Your task to perform on an android device: Open Yahoo.com Image 0: 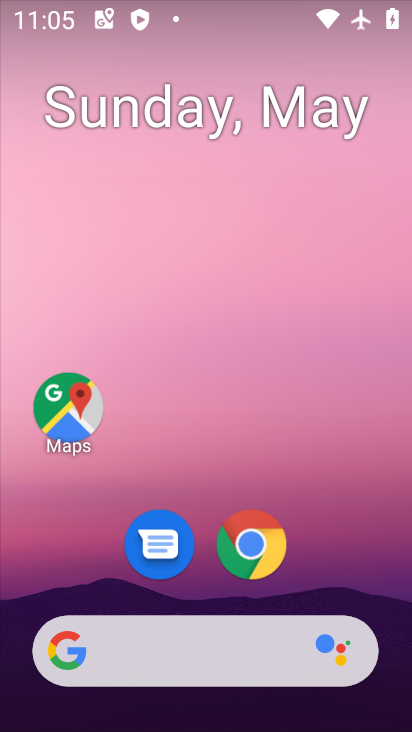
Step 0: click (231, 548)
Your task to perform on an android device: Open Yahoo.com Image 1: 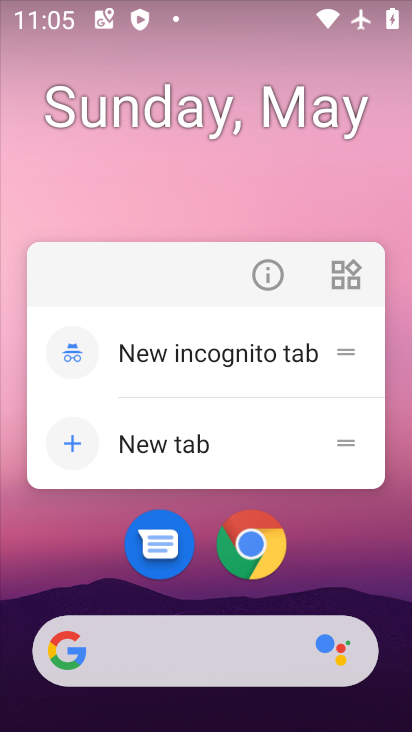
Step 1: click (267, 522)
Your task to perform on an android device: Open Yahoo.com Image 2: 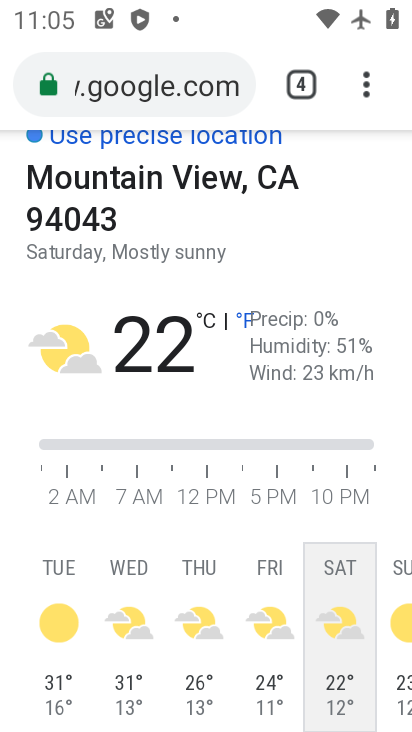
Step 2: click (357, 88)
Your task to perform on an android device: Open Yahoo.com Image 3: 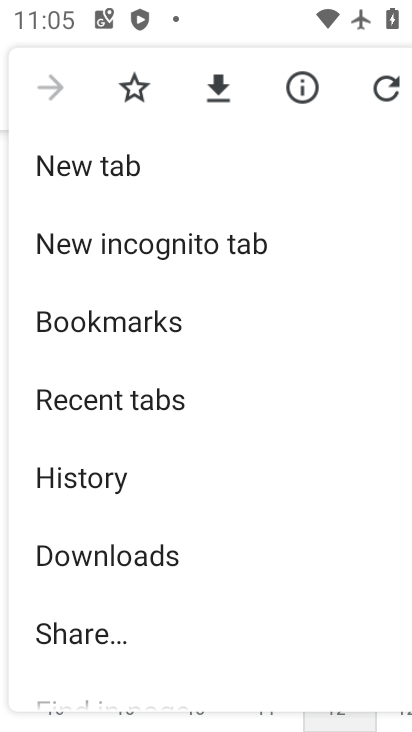
Step 3: click (92, 175)
Your task to perform on an android device: Open Yahoo.com Image 4: 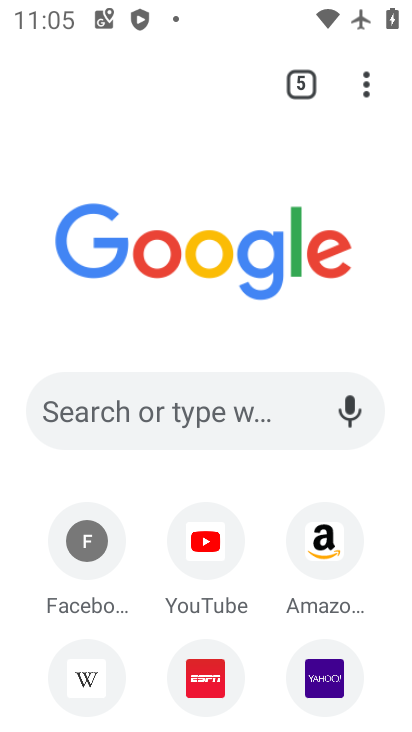
Step 4: click (325, 673)
Your task to perform on an android device: Open Yahoo.com Image 5: 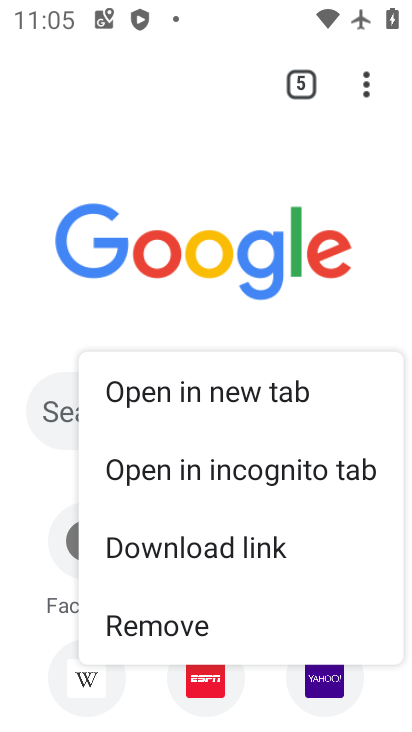
Step 5: click (329, 682)
Your task to perform on an android device: Open Yahoo.com Image 6: 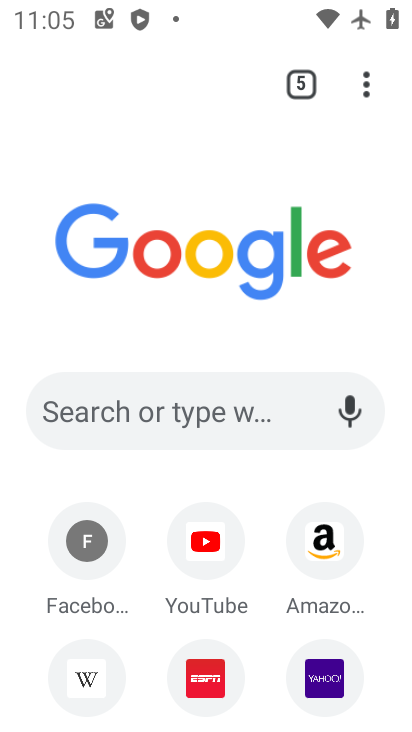
Step 6: click (326, 674)
Your task to perform on an android device: Open Yahoo.com Image 7: 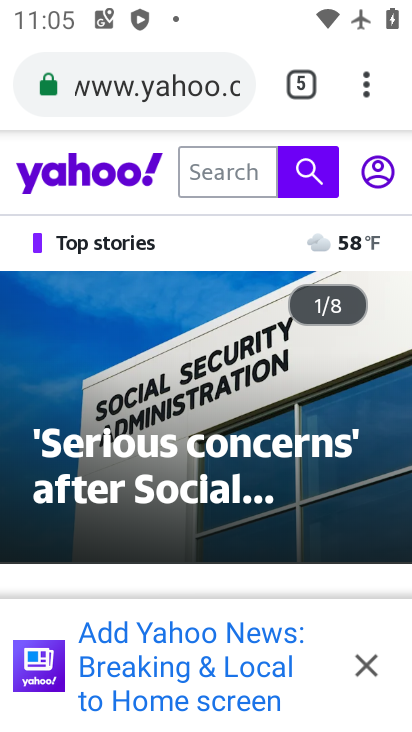
Step 7: task complete